Your task to perform on an android device: Go to location settings Image 0: 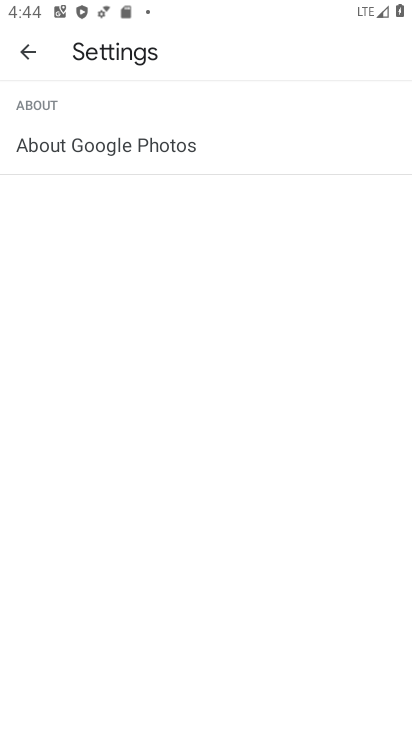
Step 0: press home button
Your task to perform on an android device: Go to location settings Image 1: 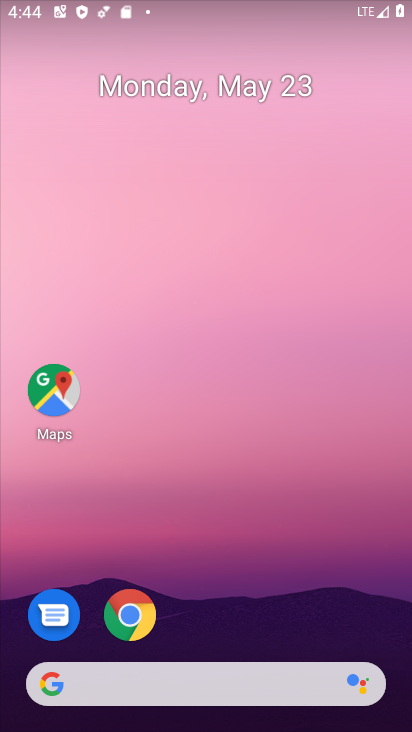
Step 1: click (50, 389)
Your task to perform on an android device: Go to location settings Image 2: 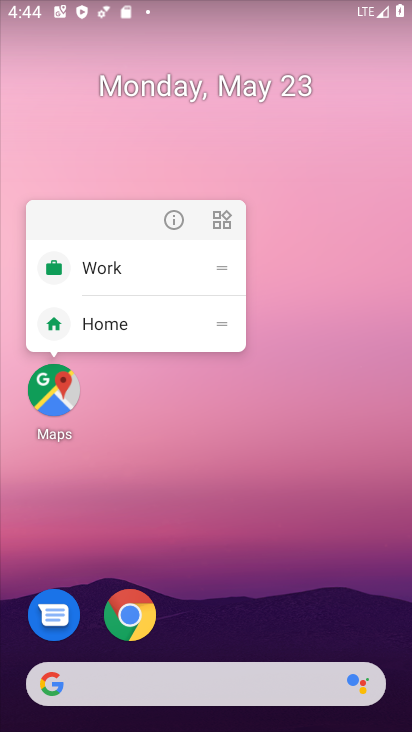
Step 2: click (56, 394)
Your task to perform on an android device: Go to location settings Image 3: 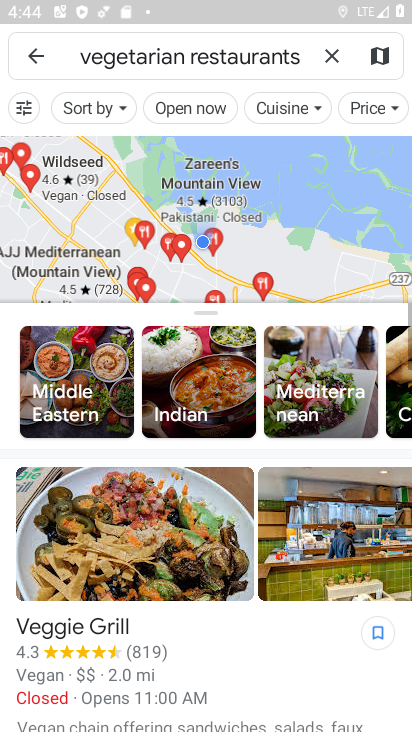
Step 3: click (40, 53)
Your task to perform on an android device: Go to location settings Image 4: 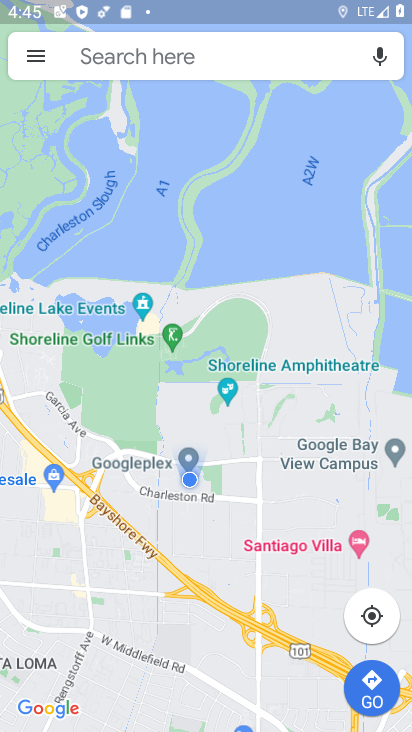
Step 4: task complete